Your task to perform on an android device: Is it going to rain tomorrow? Image 0: 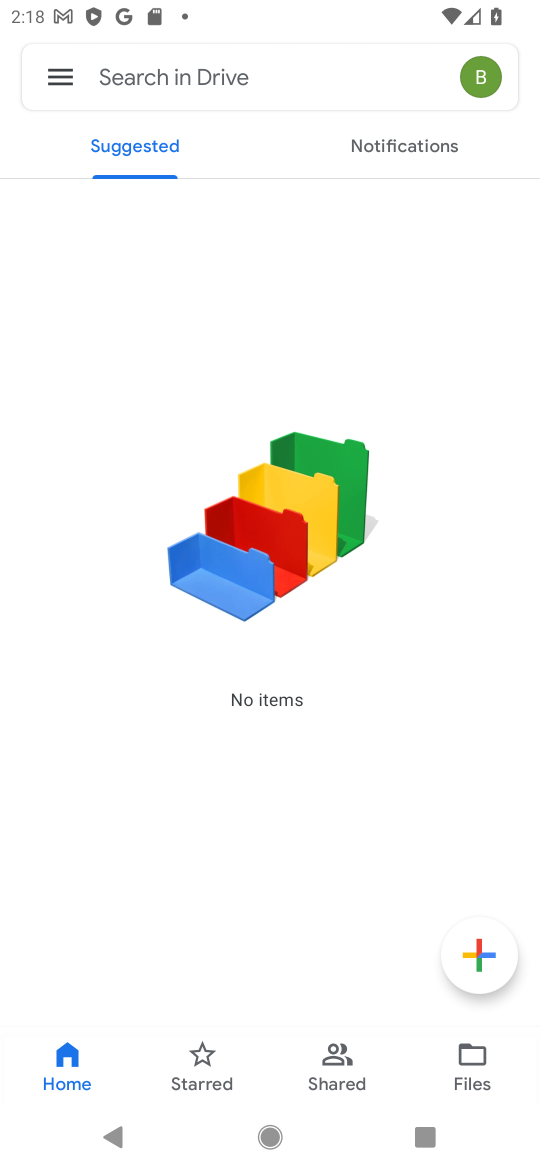
Step 0: task complete